Your task to perform on an android device: toggle wifi Image 0: 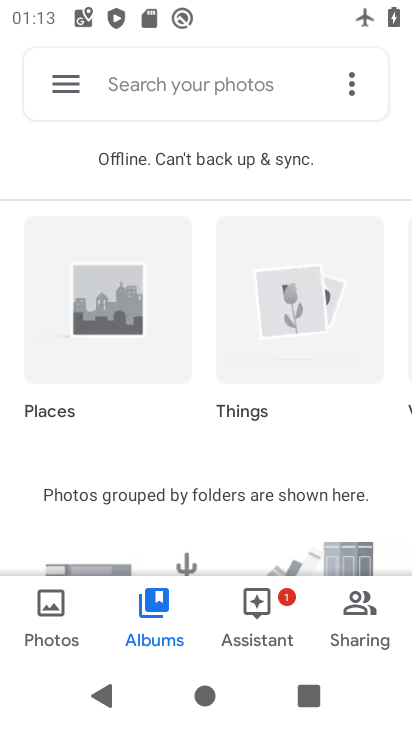
Step 0: press home button
Your task to perform on an android device: toggle wifi Image 1: 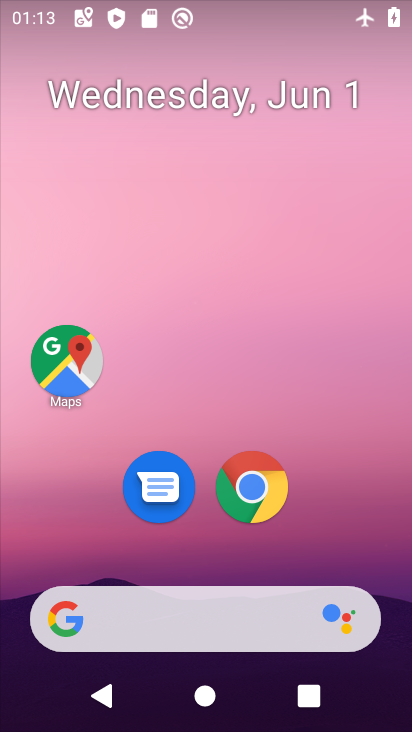
Step 1: drag from (250, 501) to (271, 176)
Your task to perform on an android device: toggle wifi Image 2: 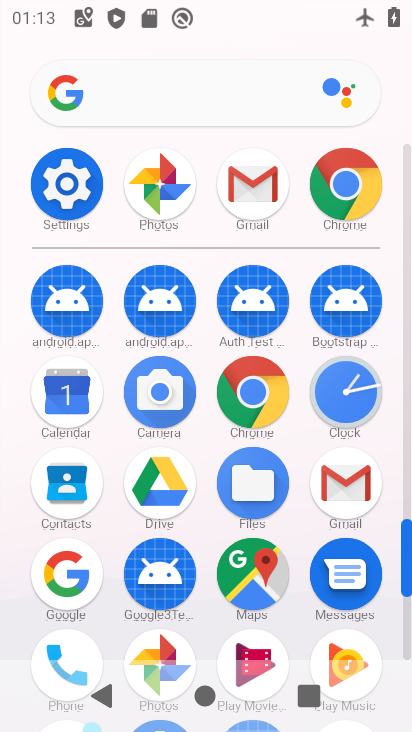
Step 2: click (72, 177)
Your task to perform on an android device: toggle wifi Image 3: 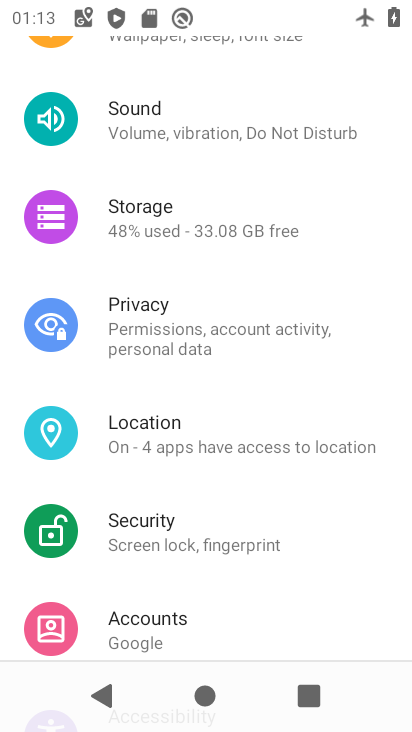
Step 3: drag from (171, 123) to (194, 616)
Your task to perform on an android device: toggle wifi Image 4: 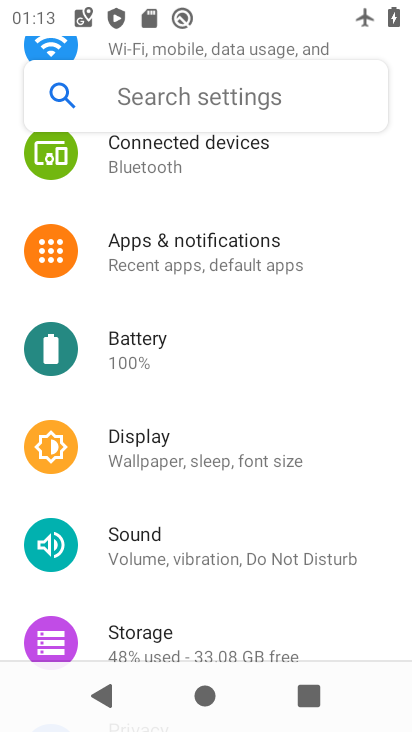
Step 4: drag from (206, 178) to (252, 645)
Your task to perform on an android device: toggle wifi Image 5: 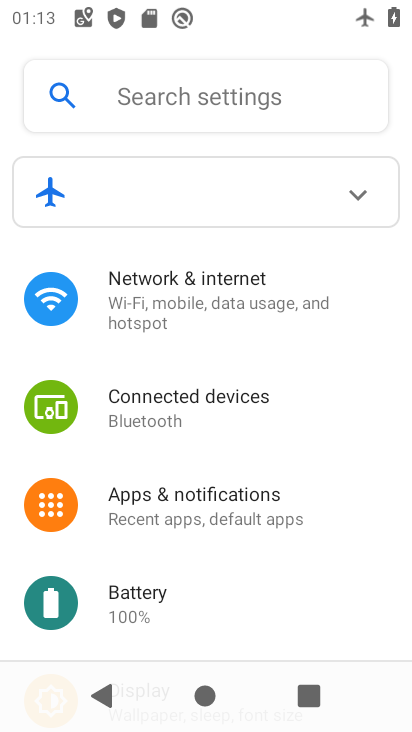
Step 5: click (229, 294)
Your task to perform on an android device: toggle wifi Image 6: 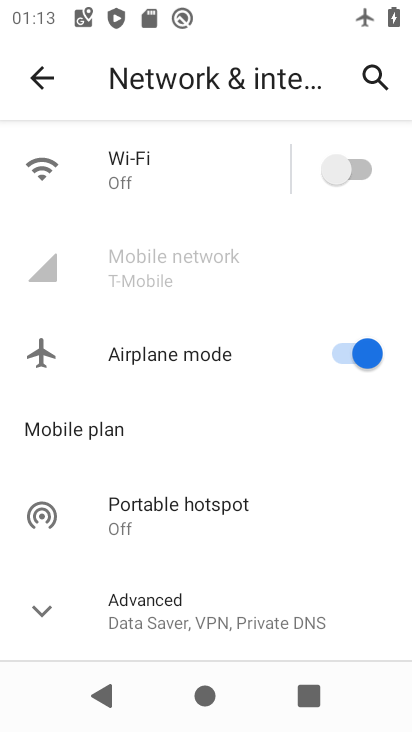
Step 6: click (317, 165)
Your task to perform on an android device: toggle wifi Image 7: 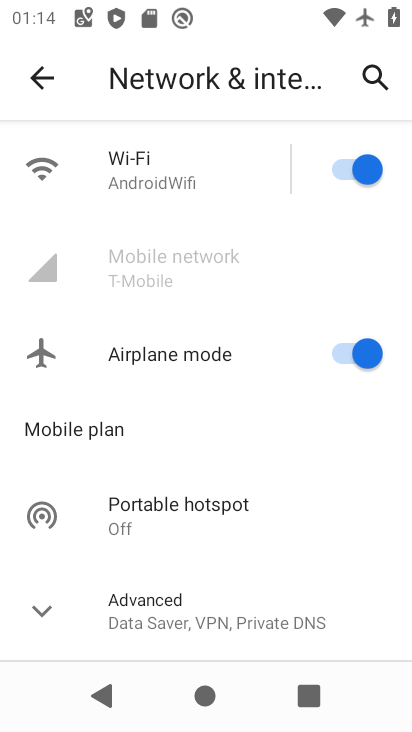
Step 7: task complete